Your task to perform on an android device: install app "DoorDash - Dasher" Image 0: 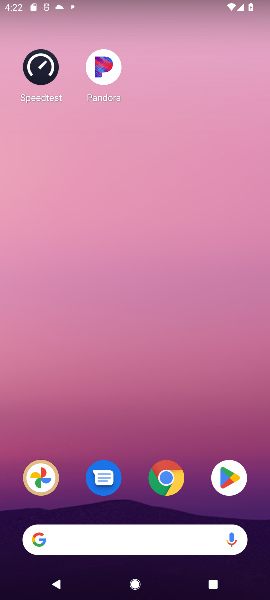
Step 0: press home button
Your task to perform on an android device: install app "DoorDash - Dasher" Image 1: 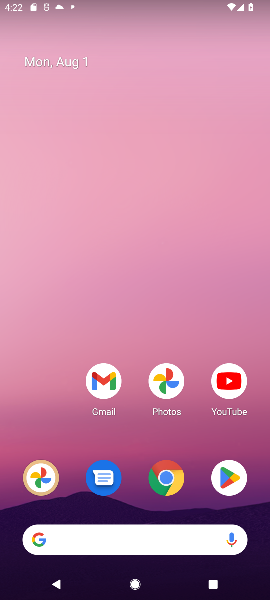
Step 1: click (221, 485)
Your task to perform on an android device: install app "DoorDash - Dasher" Image 2: 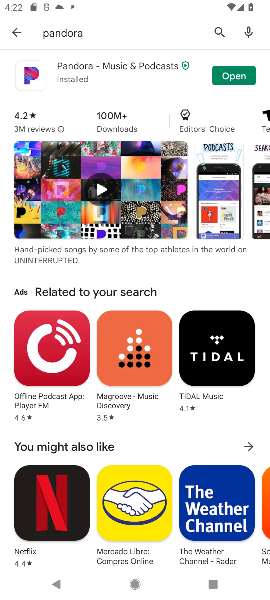
Step 2: click (221, 25)
Your task to perform on an android device: install app "DoorDash - Dasher" Image 3: 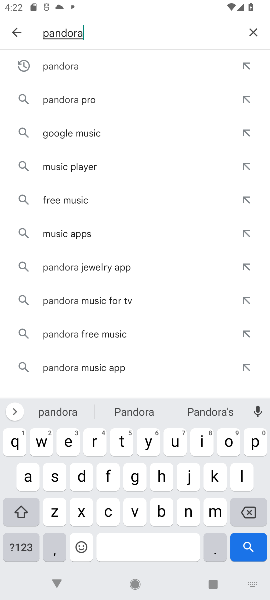
Step 3: click (250, 30)
Your task to perform on an android device: install app "DoorDash - Dasher" Image 4: 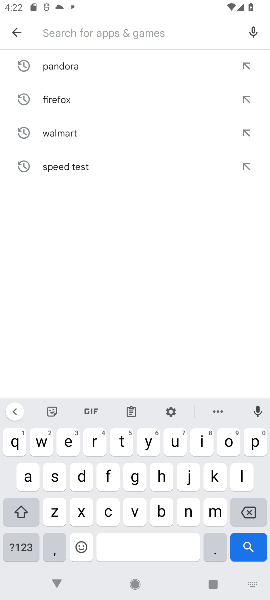
Step 4: click (80, 481)
Your task to perform on an android device: install app "DoorDash - Dasher" Image 5: 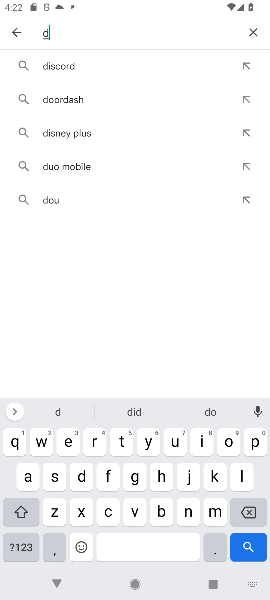
Step 5: click (223, 446)
Your task to perform on an android device: install app "DoorDash - Dasher" Image 6: 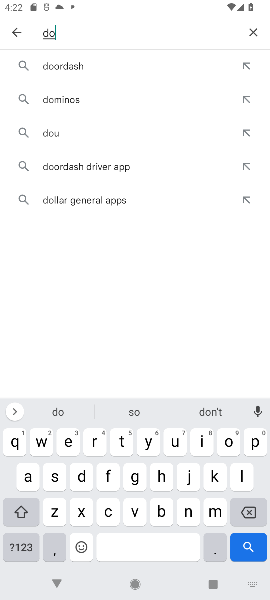
Step 6: click (77, 72)
Your task to perform on an android device: install app "DoorDash - Dasher" Image 7: 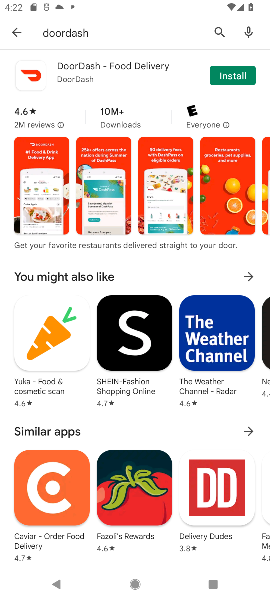
Step 7: click (226, 76)
Your task to perform on an android device: install app "DoorDash - Dasher" Image 8: 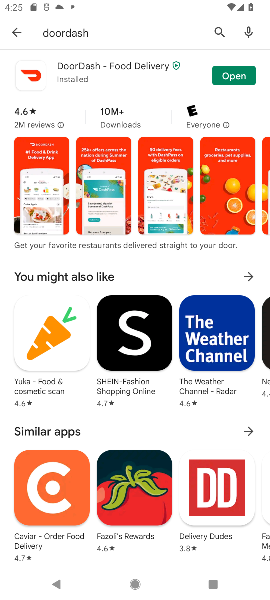
Step 8: task complete